Your task to perform on an android device: What's on my calendar tomorrow? Image 0: 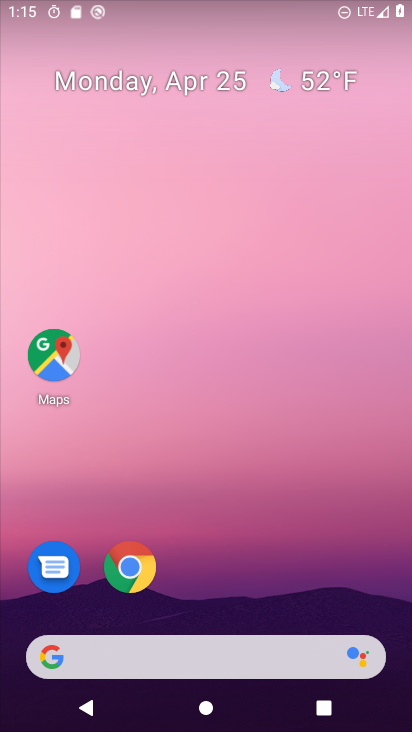
Step 0: drag from (253, 552) to (241, 0)
Your task to perform on an android device: What's on my calendar tomorrow? Image 1: 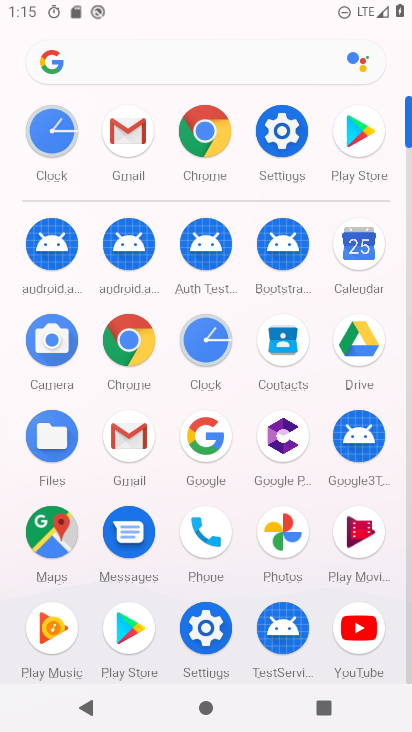
Step 1: click (357, 244)
Your task to perform on an android device: What's on my calendar tomorrow? Image 2: 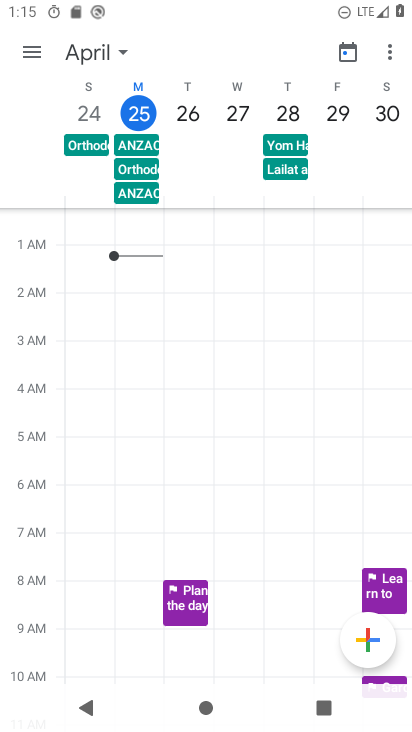
Step 2: click (191, 593)
Your task to perform on an android device: What's on my calendar tomorrow? Image 3: 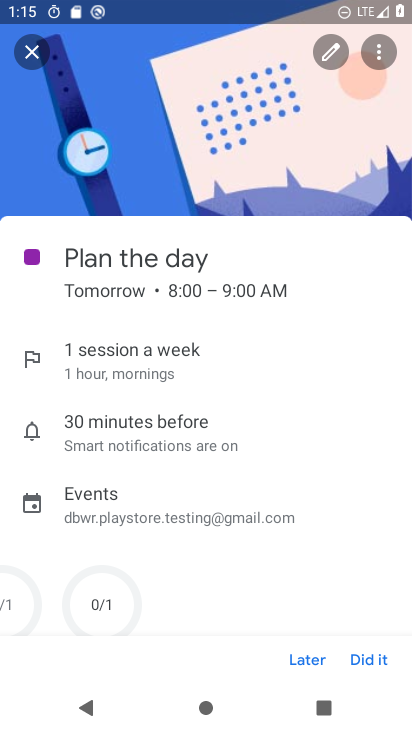
Step 3: task complete